Your task to perform on an android device: turn on location history Image 0: 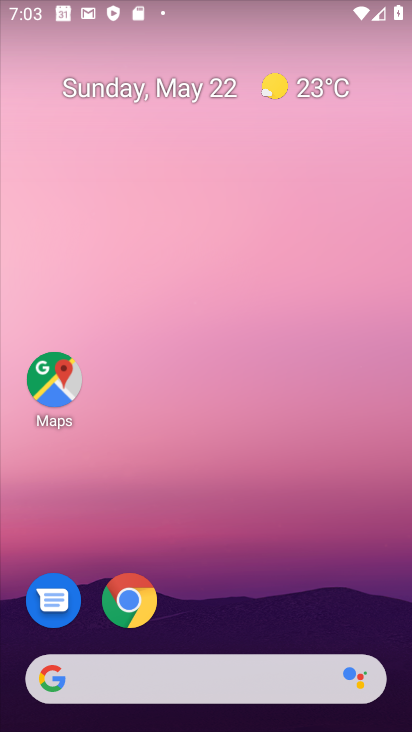
Step 0: drag from (336, 595) to (270, 99)
Your task to perform on an android device: turn on location history Image 1: 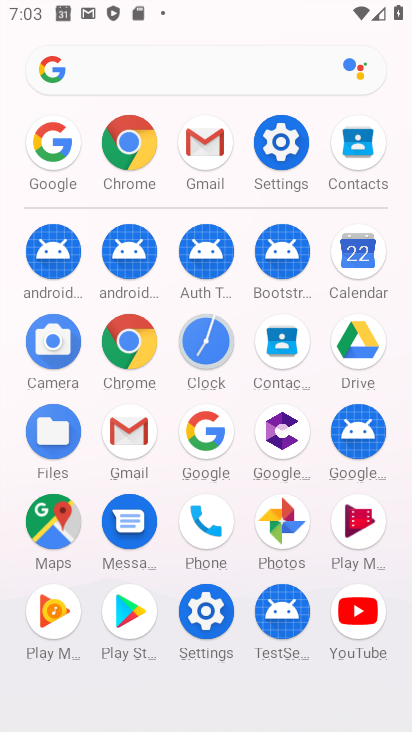
Step 1: click (286, 167)
Your task to perform on an android device: turn on location history Image 2: 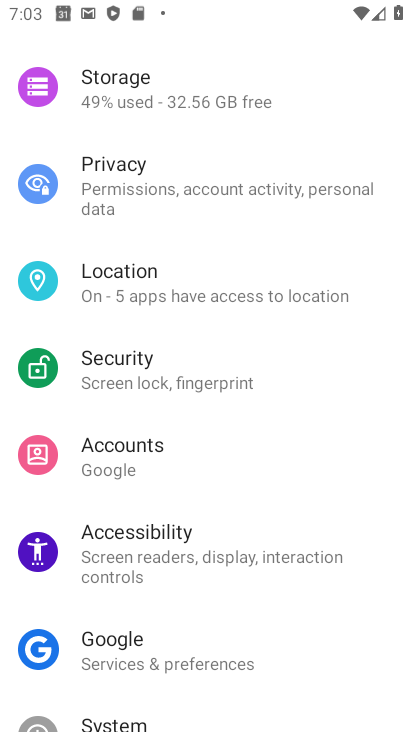
Step 2: click (139, 290)
Your task to perform on an android device: turn on location history Image 3: 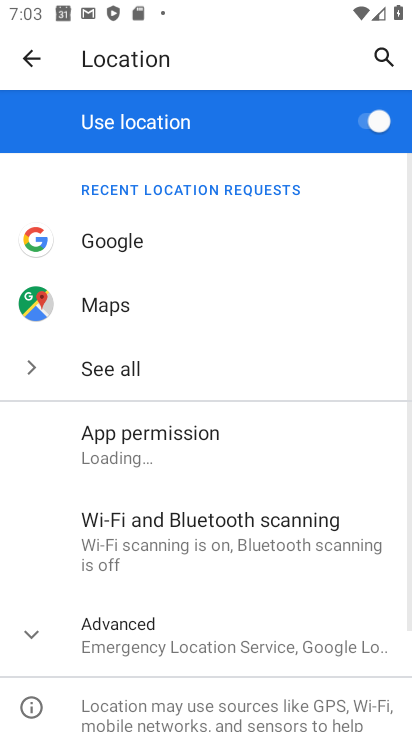
Step 3: click (177, 650)
Your task to perform on an android device: turn on location history Image 4: 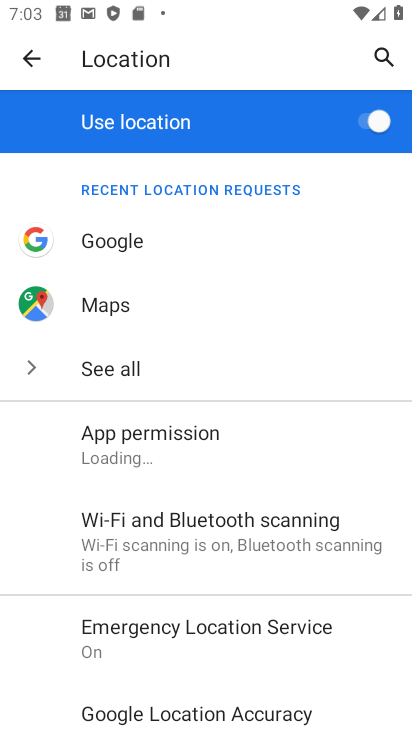
Step 4: drag from (177, 650) to (193, 392)
Your task to perform on an android device: turn on location history Image 5: 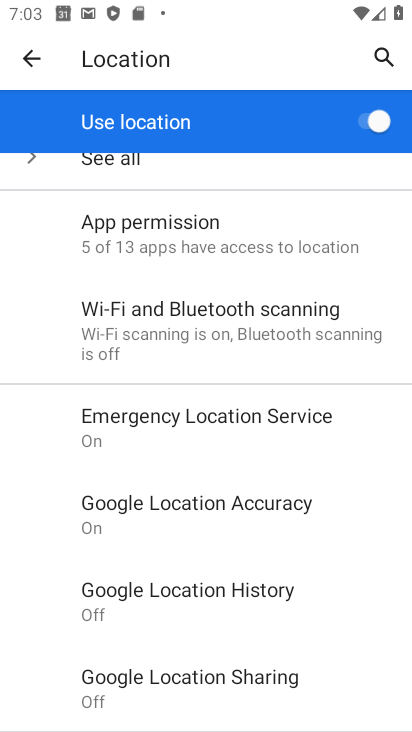
Step 5: click (232, 586)
Your task to perform on an android device: turn on location history Image 6: 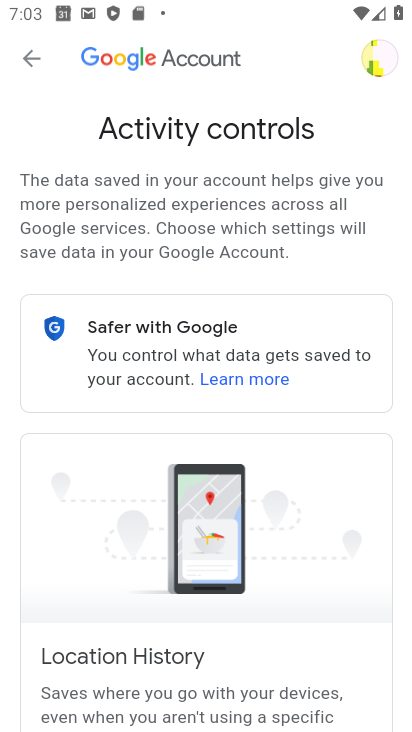
Step 6: drag from (229, 318) to (180, 154)
Your task to perform on an android device: turn on location history Image 7: 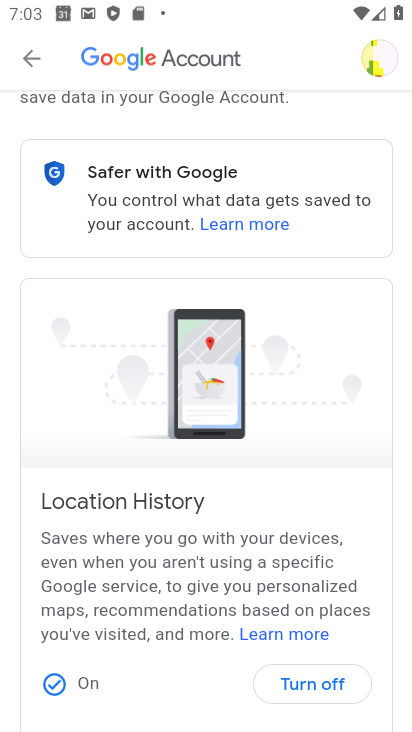
Step 7: click (298, 676)
Your task to perform on an android device: turn on location history Image 8: 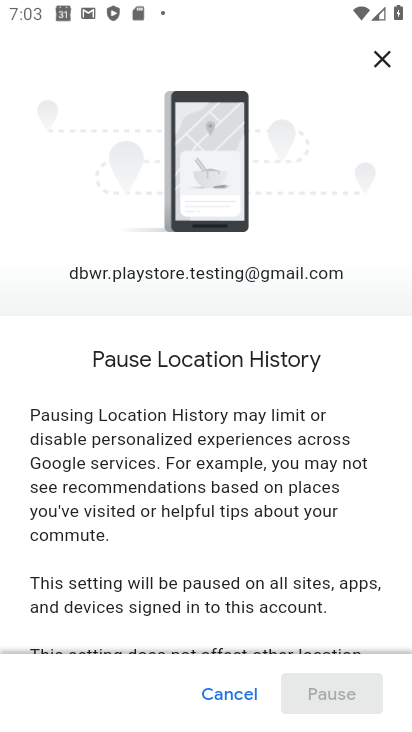
Step 8: task complete